Your task to perform on an android device: check out phone information Image 0: 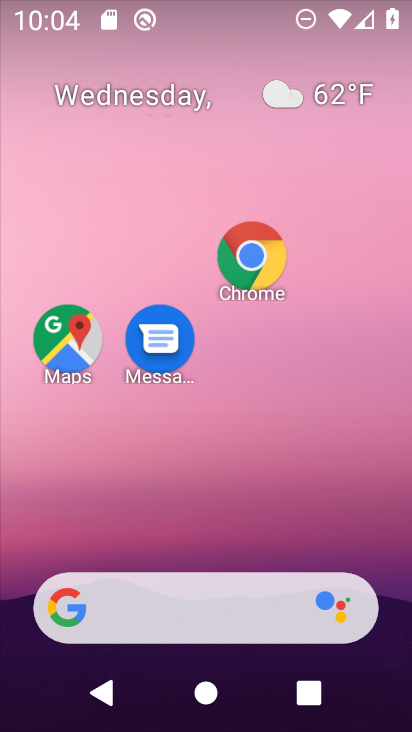
Step 0: drag from (234, 491) to (199, 121)
Your task to perform on an android device: check out phone information Image 1: 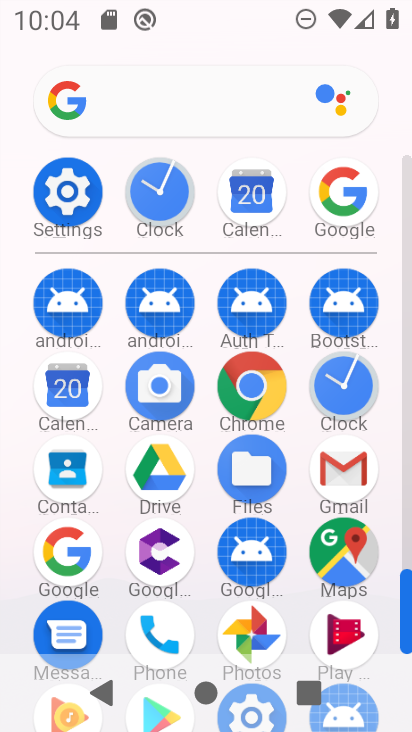
Step 1: click (74, 179)
Your task to perform on an android device: check out phone information Image 2: 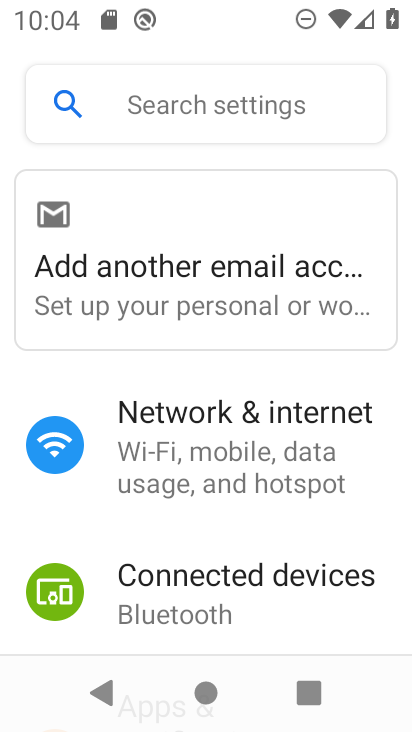
Step 2: drag from (235, 513) to (236, 109)
Your task to perform on an android device: check out phone information Image 3: 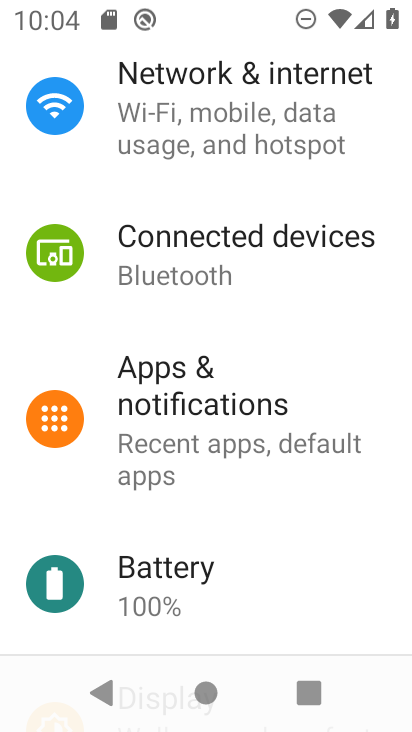
Step 3: drag from (291, 551) to (285, 19)
Your task to perform on an android device: check out phone information Image 4: 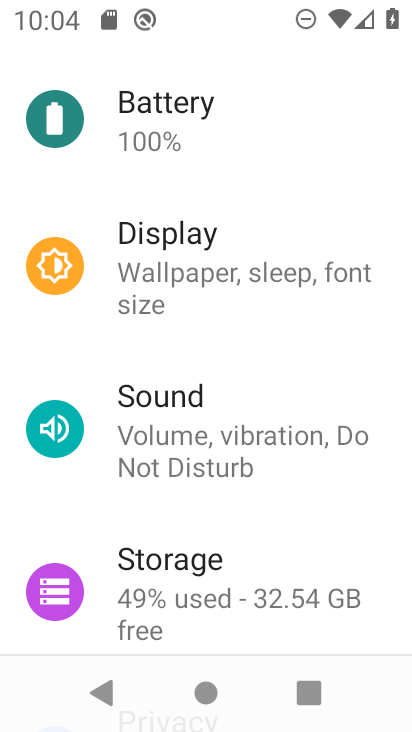
Step 4: drag from (269, 581) to (229, 26)
Your task to perform on an android device: check out phone information Image 5: 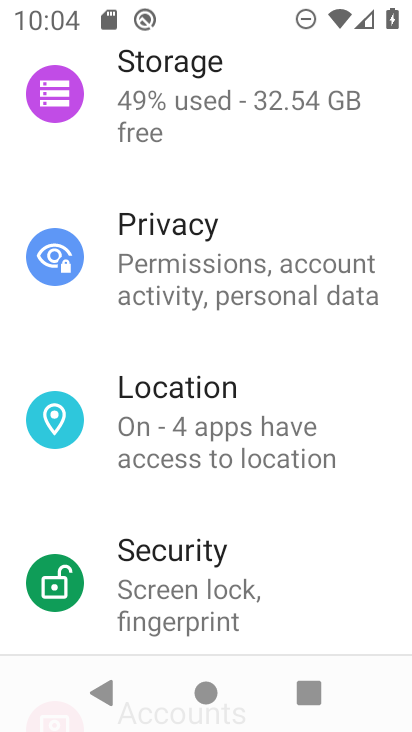
Step 5: drag from (198, 593) to (192, 32)
Your task to perform on an android device: check out phone information Image 6: 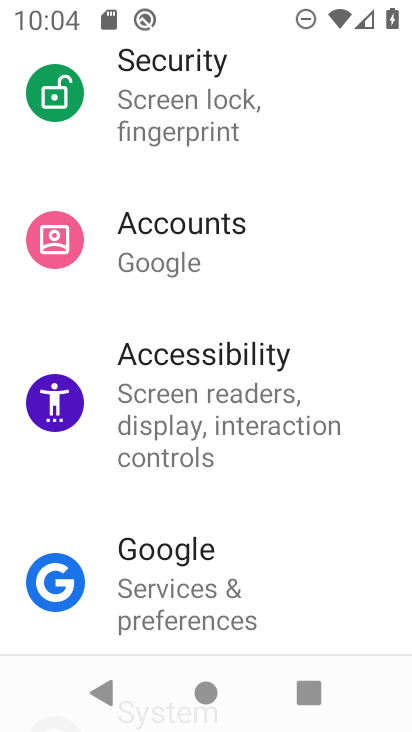
Step 6: drag from (193, 643) to (297, 101)
Your task to perform on an android device: check out phone information Image 7: 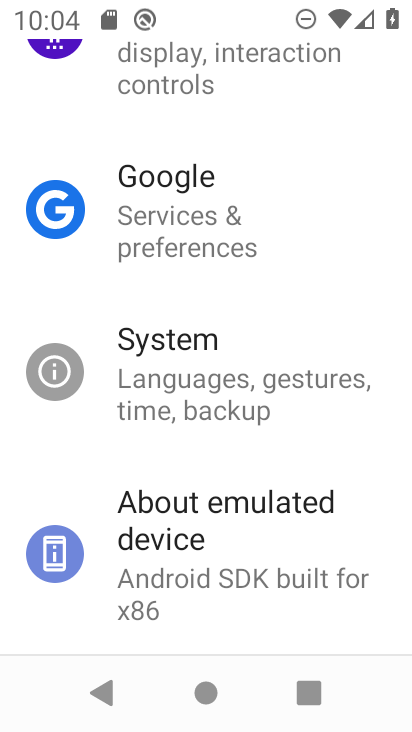
Step 7: click (190, 543)
Your task to perform on an android device: check out phone information Image 8: 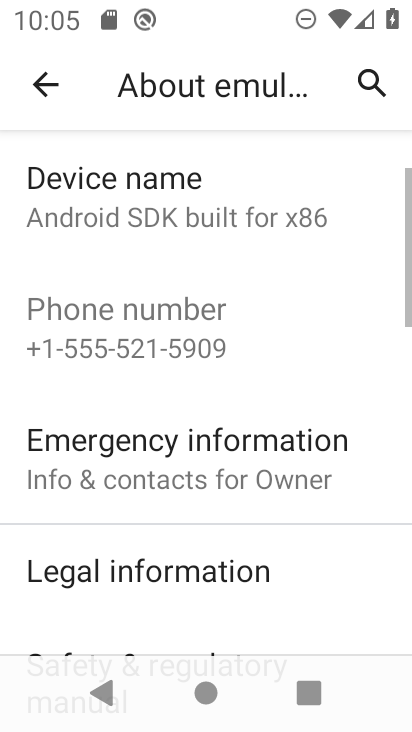
Step 8: task complete